Your task to perform on an android device: Go to display settings Image 0: 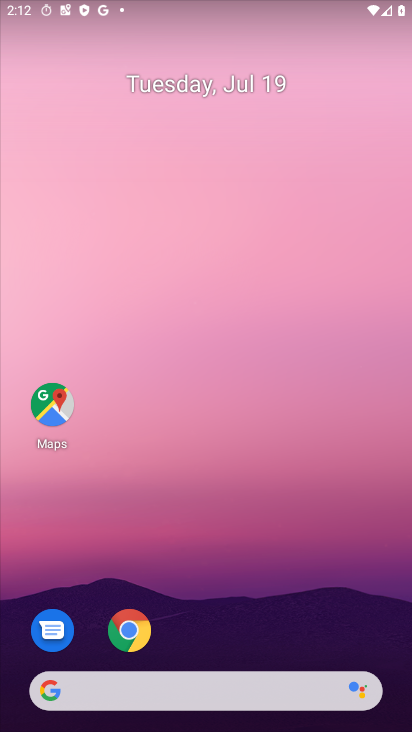
Step 0: drag from (268, 604) to (289, 85)
Your task to perform on an android device: Go to display settings Image 1: 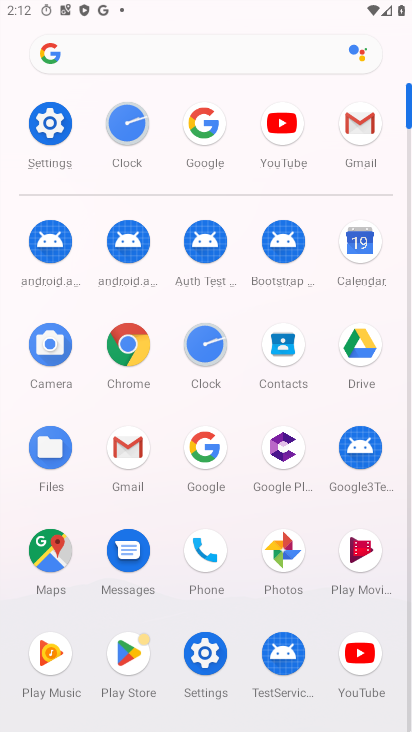
Step 1: click (53, 113)
Your task to perform on an android device: Go to display settings Image 2: 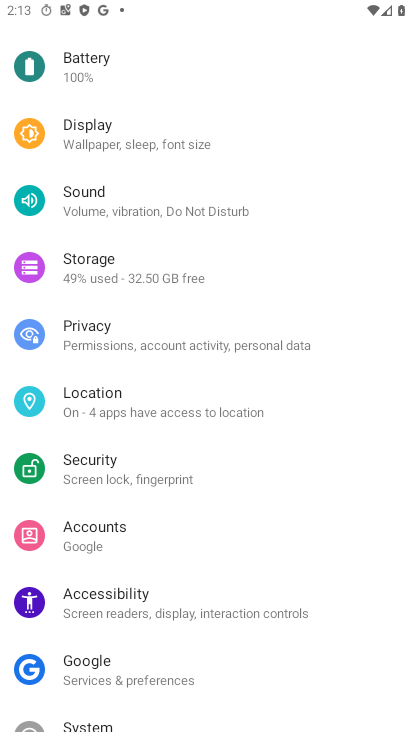
Step 2: click (98, 124)
Your task to perform on an android device: Go to display settings Image 3: 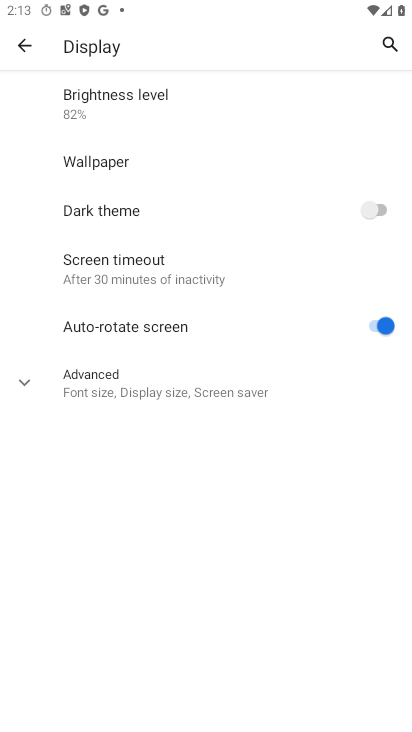
Step 3: task complete